Your task to perform on an android device: check data usage Image 0: 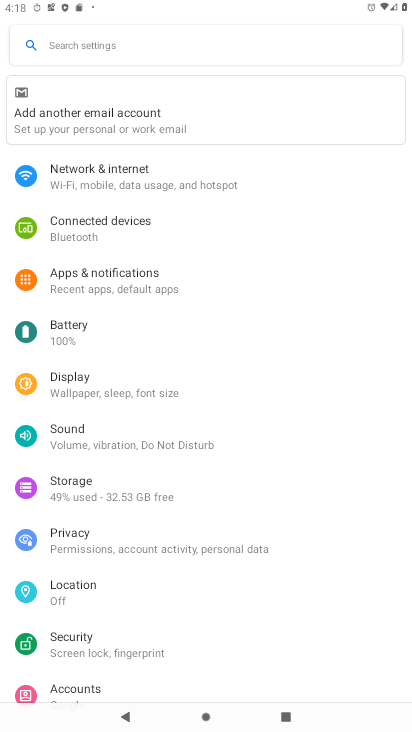
Step 0: click (105, 167)
Your task to perform on an android device: check data usage Image 1: 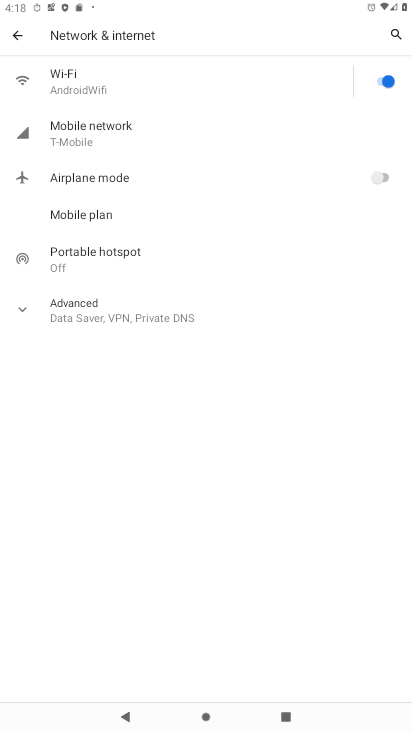
Step 1: click (84, 220)
Your task to perform on an android device: check data usage Image 2: 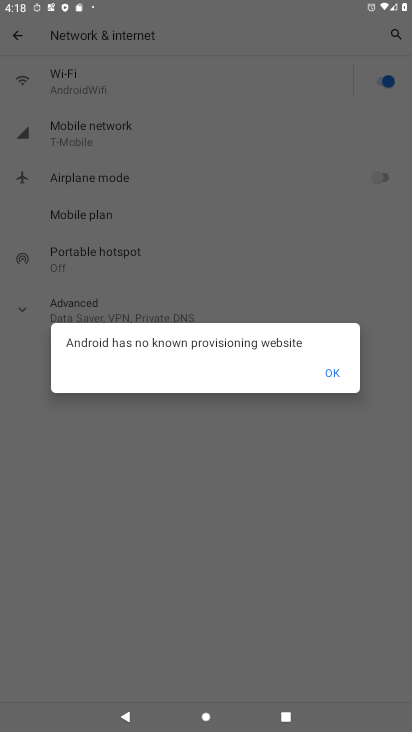
Step 2: click (327, 369)
Your task to perform on an android device: check data usage Image 3: 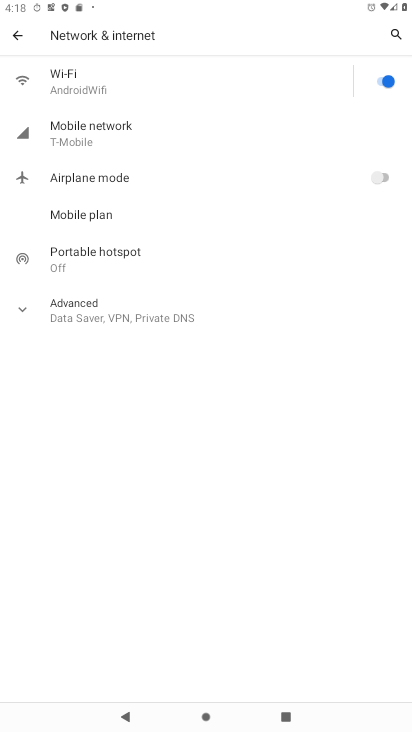
Step 3: click (93, 125)
Your task to perform on an android device: check data usage Image 4: 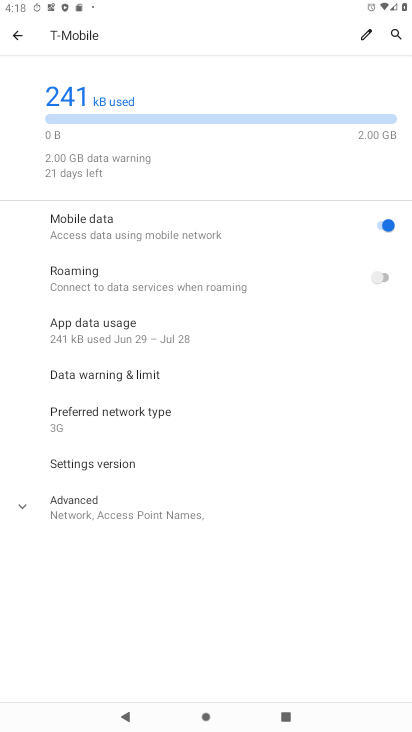
Step 4: task complete